Your task to perform on an android device: turn notification dots off Image 0: 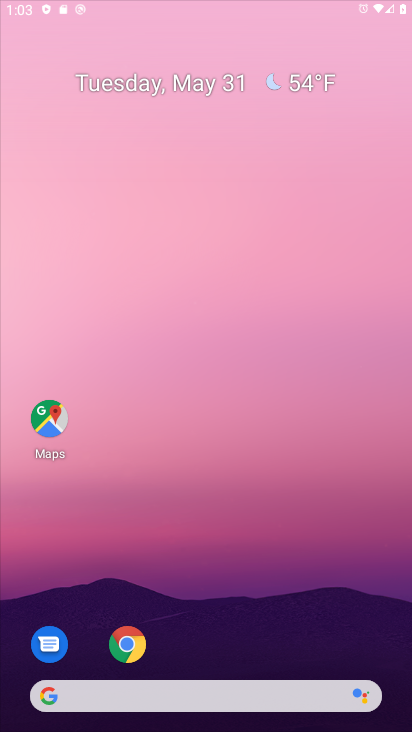
Step 0: press home button
Your task to perform on an android device: turn notification dots off Image 1: 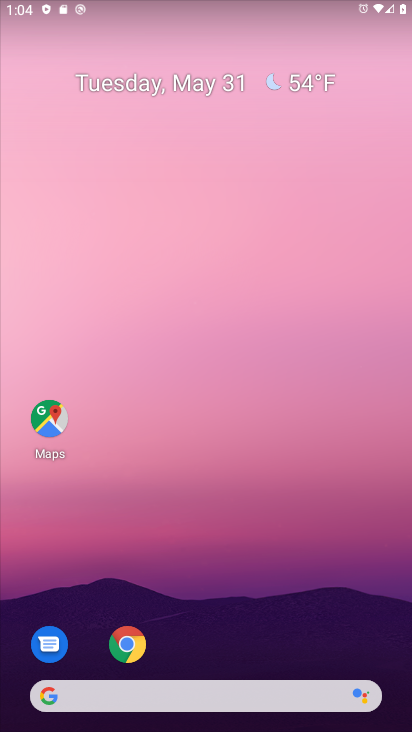
Step 1: drag from (220, 657) to (231, 122)
Your task to perform on an android device: turn notification dots off Image 2: 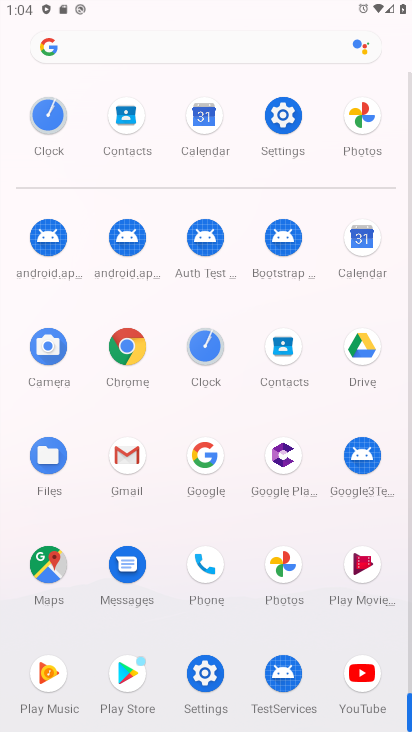
Step 2: click (286, 121)
Your task to perform on an android device: turn notification dots off Image 3: 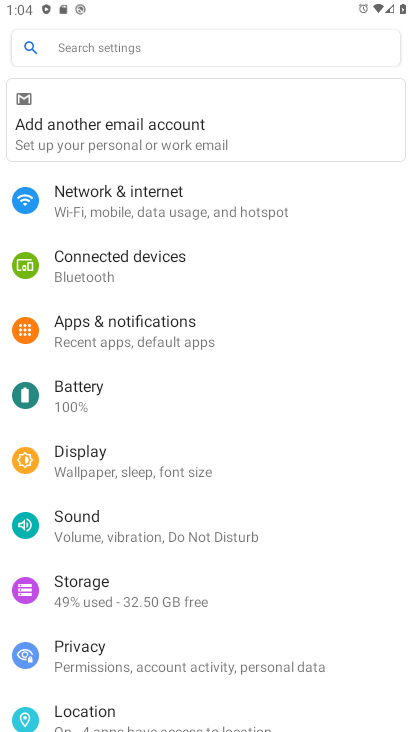
Step 3: click (121, 326)
Your task to perform on an android device: turn notification dots off Image 4: 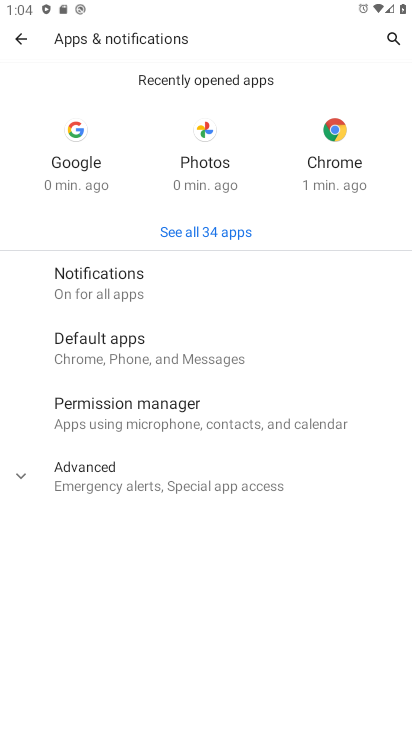
Step 4: click (95, 269)
Your task to perform on an android device: turn notification dots off Image 5: 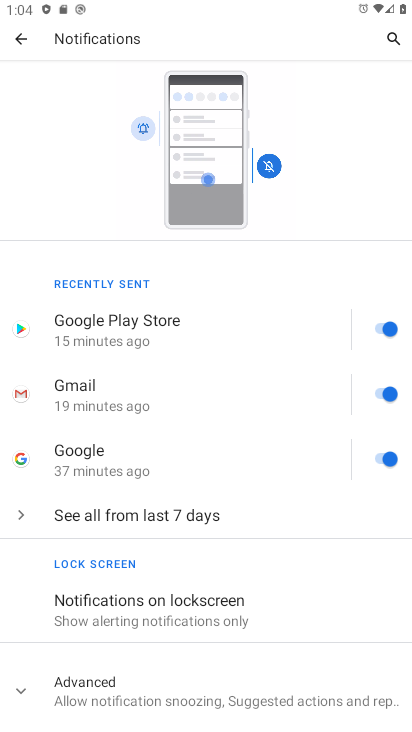
Step 5: drag from (219, 651) to (262, 449)
Your task to perform on an android device: turn notification dots off Image 6: 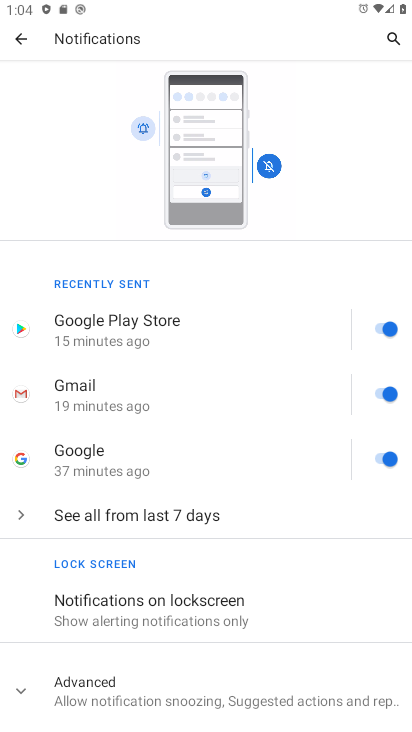
Step 6: click (83, 689)
Your task to perform on an android device: turn notification dots off Image 7: 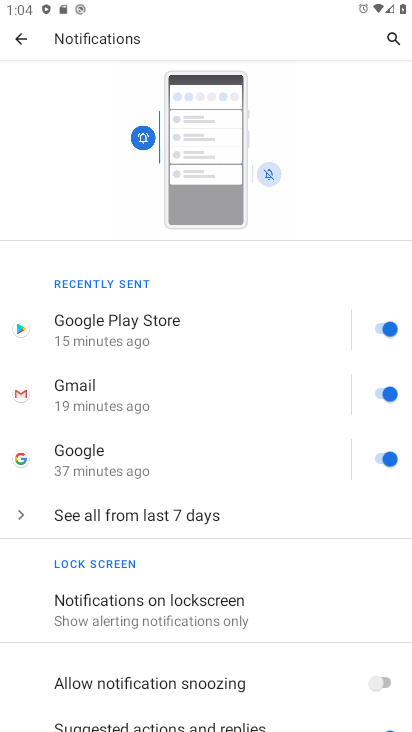
Step 7: drag from (158, 637) to (215, 382)
Your task to perform on an android device: turn notification dots off Image 8: 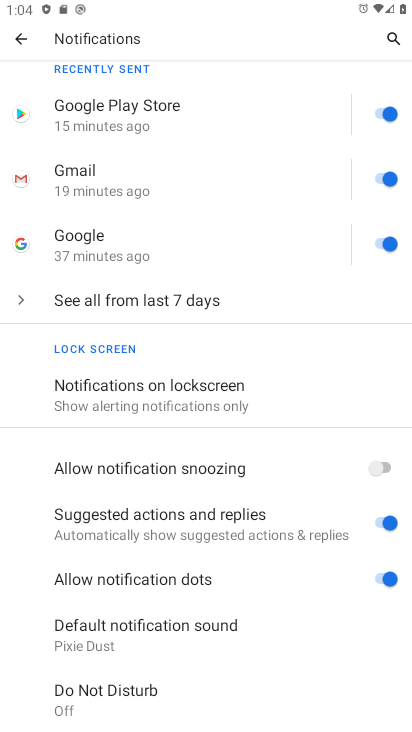
Step 8: click (394, 576)
Your task to perform on an android device: turn notification dots off Image 9: 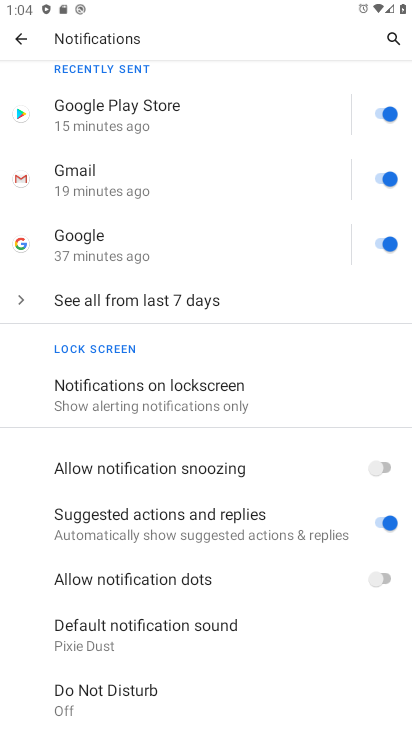
Step 9: task complete